Your task to perform on an android device: check data usage Image 0: 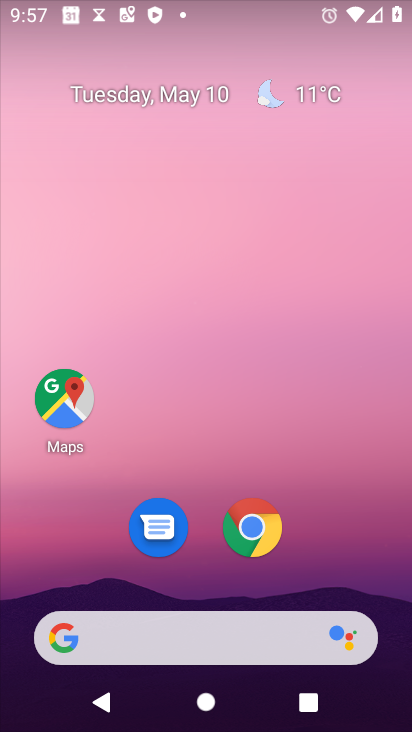
Step 0: click (411, 453)
Your task to perform on an android device: check data usage Image 1: 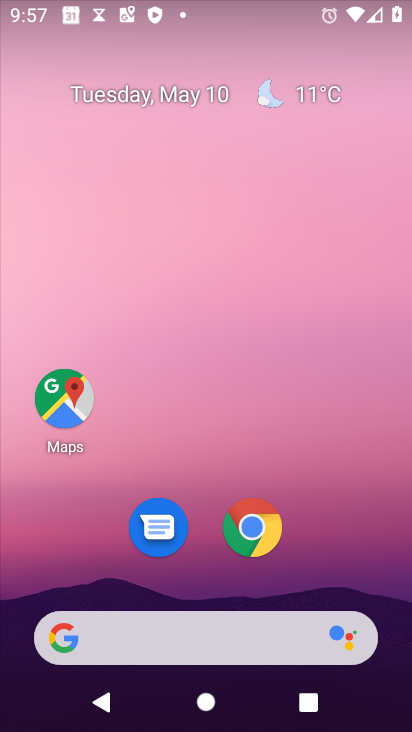
Step 1: drag from (264, 10) to (401, 24)
Your task to perform on an android device: check data usage Image 2: 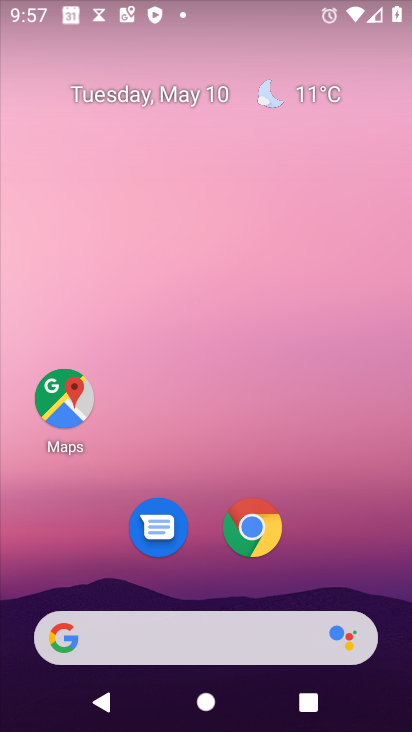
Step 2: drag from (375, 9) to (342, 490)
Your task to perform on an android device: check data usage Image 3: 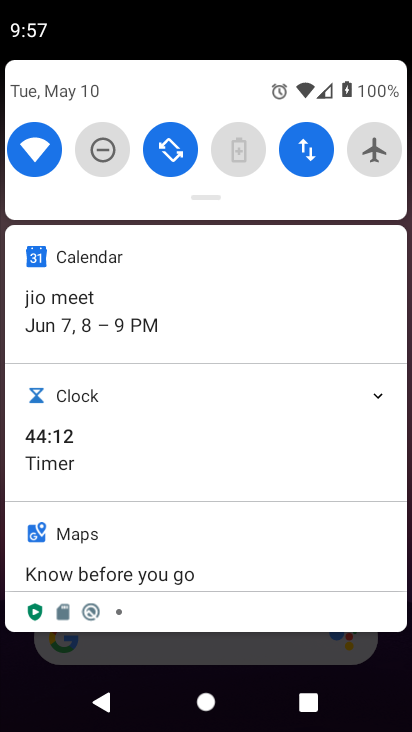
Step 3: click (308, 136)
Your task to perform on an android device: check data usage Image 4: 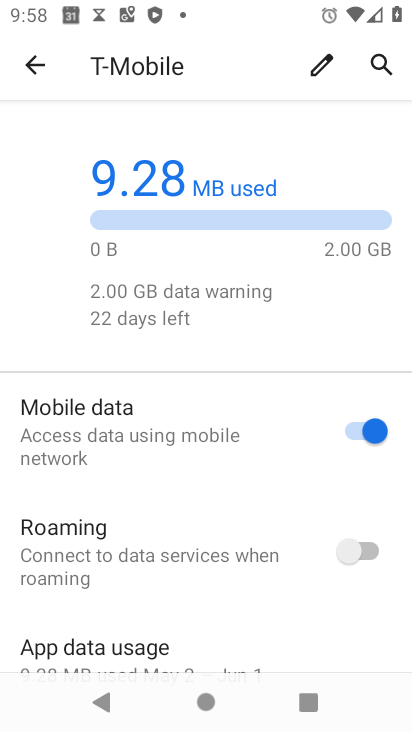
Step 4: task complete